Your task to perform on an android device: Go to battery settings Image 0: 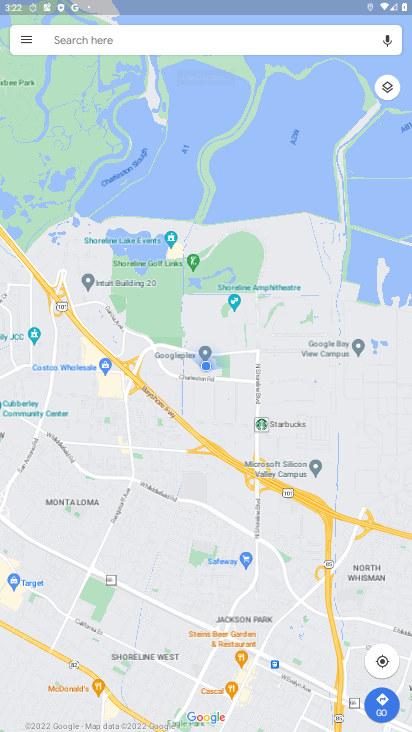
Step 0: press home button
Your task to perform on an android device: Go to battery settings Image 1: 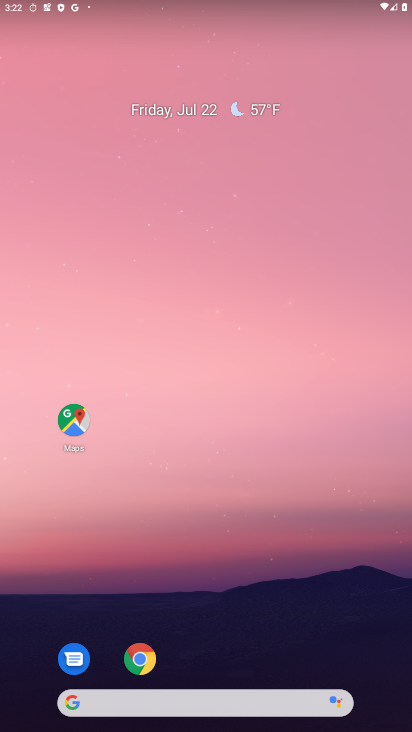
Step 1: drag from (229, 642) to (165, 12)
Your task to perform on an android device: Go to battery settings Image 2: 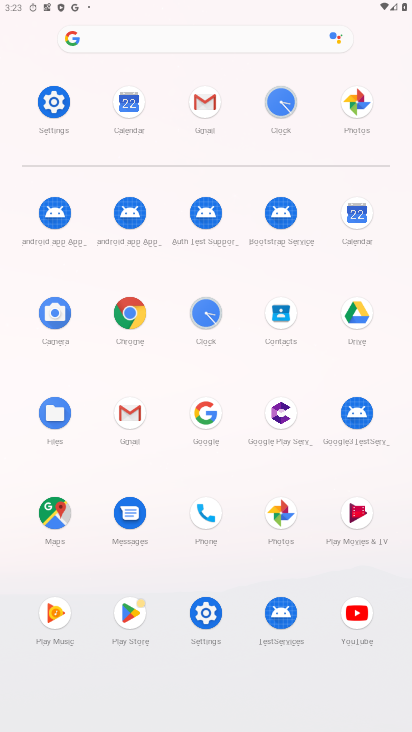
Step 2: click (44, 101)
Your task to perform on an android device: Go to battery settings Image 3: 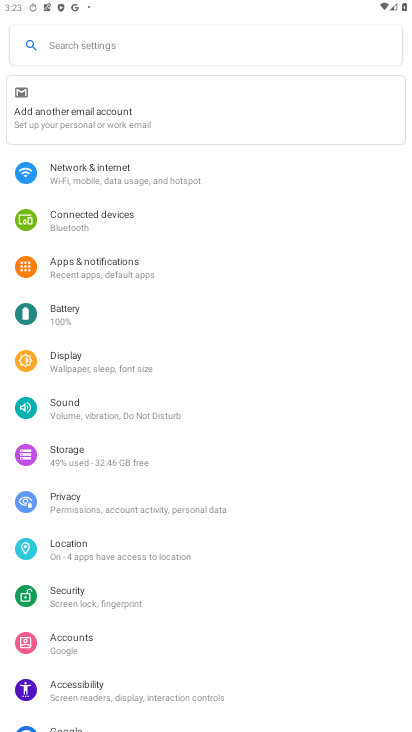
Step 3: click (72, 312)
Your task to perform on an android device: Go to battery settings Image 4: 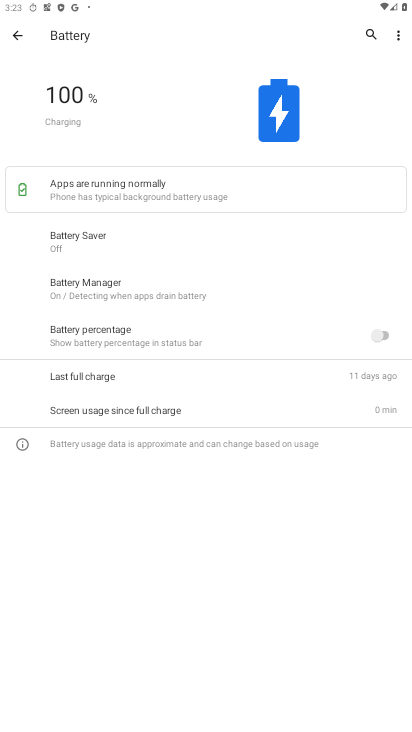
Step 4: task complete